Your task to perform on an android device: turn off data saver in the chrome app Image 0: 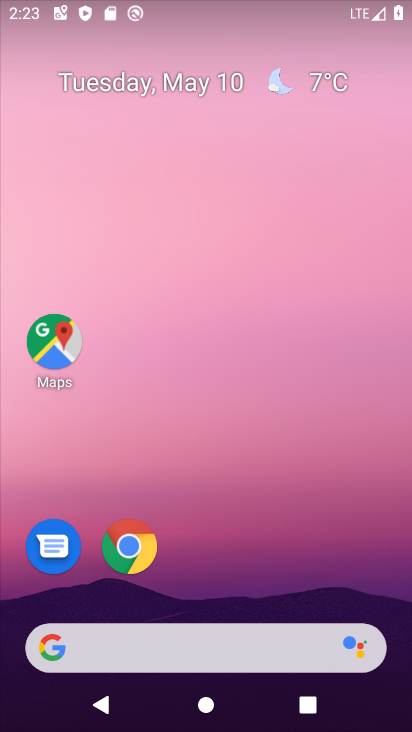
Step 0: drag from (272, 364) to (282, 47)
Your task to perform on an android device: turn off data saver in the chrome app Image 1: 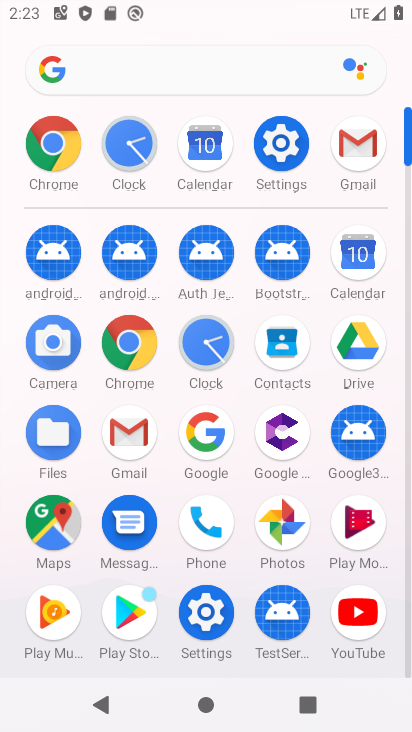
Step 1: click (46, 164)
Your task to perform on an android device: turn off data saver in the chrome app Image 2: 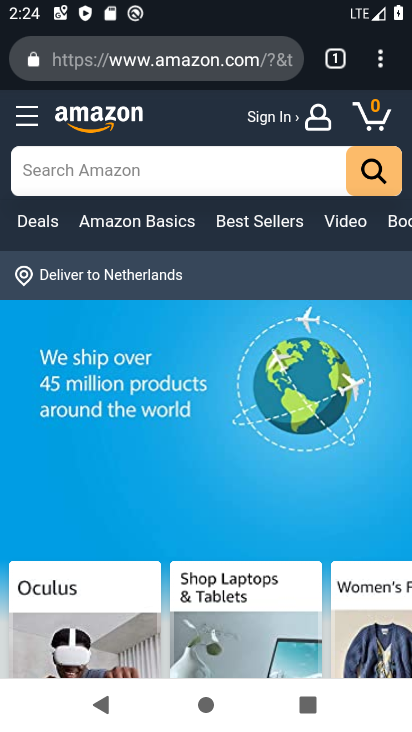
Step 2: drag from (392, 75) to (202, 578)
Your task to perform on an android device: turn off data saver in the chrome app Image 3: 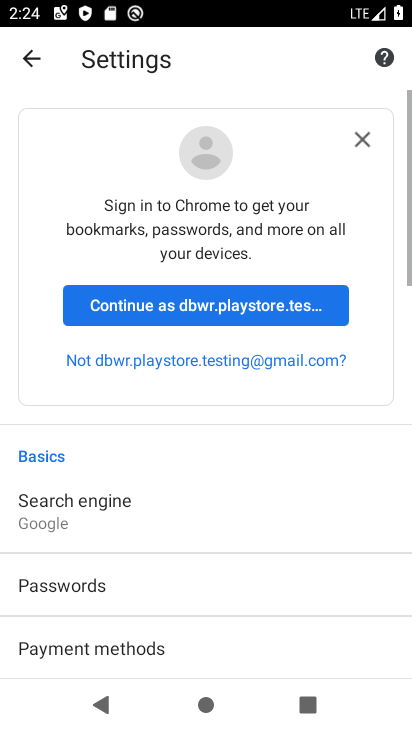
Step 3: drag from (181, 552) to (142, 153)
Your task to perform on an android device: turn off data saver in the chrome app Image 4: 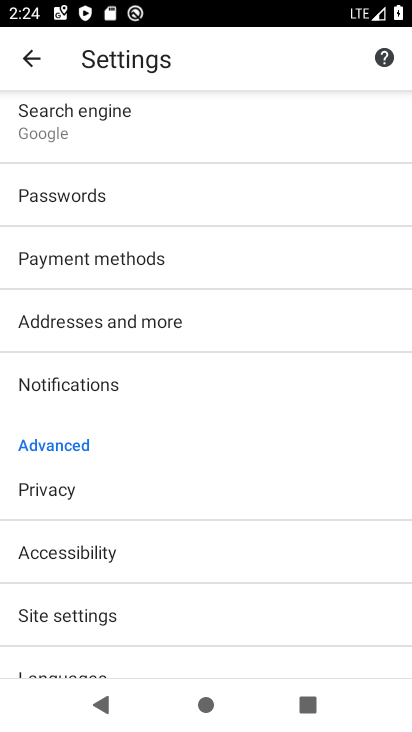
Step 4: drag from (83, 629) to (84, 258)
Your task to perform on an android device: turn off data saver in the chrome app Image 5: 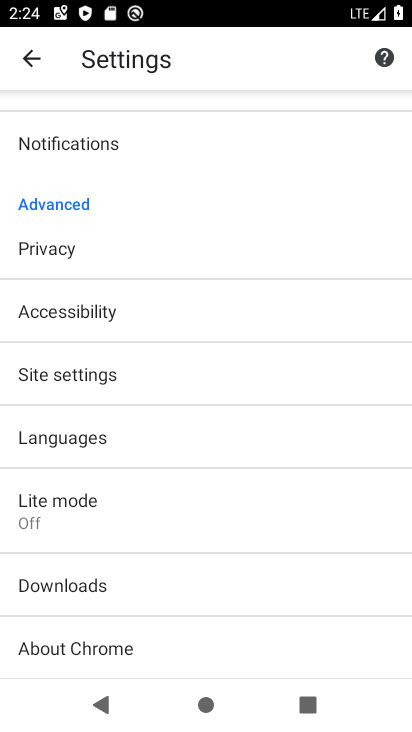
Step 5: click (112, 520)
Your task to perform on an android device: turn off data saver in the chrome app Image 6: 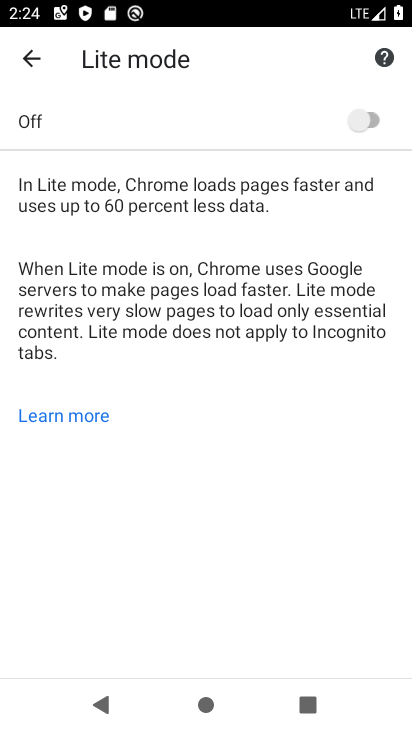
Step 6: task complete